Your task to perform on an android device: see tabs open on other devices in the chrome app Image 0: 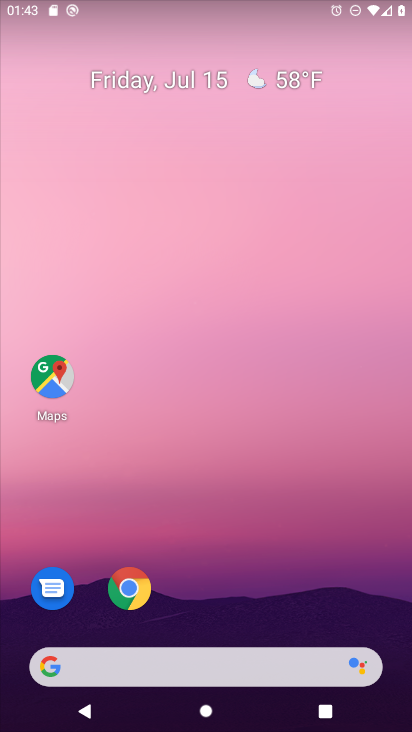
Step 0: click (131, 591)
Your task to perform on an android device: see tabs open on other devices in the chrome app Image 1: 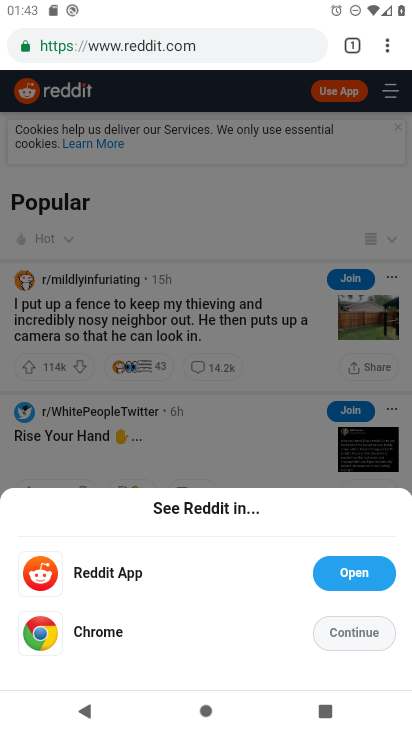
Step 1: click (388, 52)
Your task to perform on an android device: see tabs open on other devices in the chrome app Image 2: 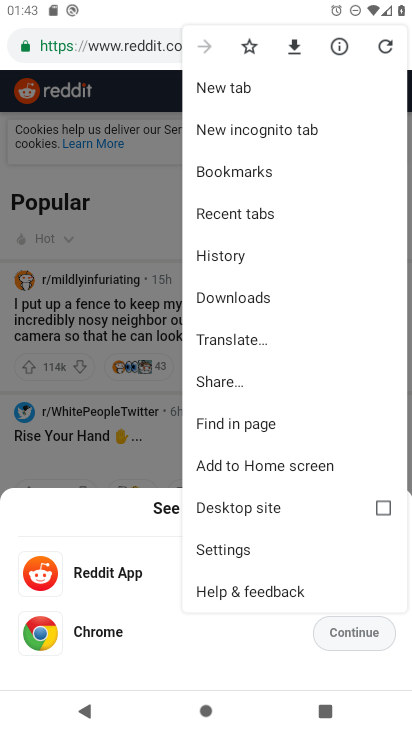
Step 2: click (225, 217)
Your task to perform on an android device: see tabs open on other devices in the chrome app Image 3: 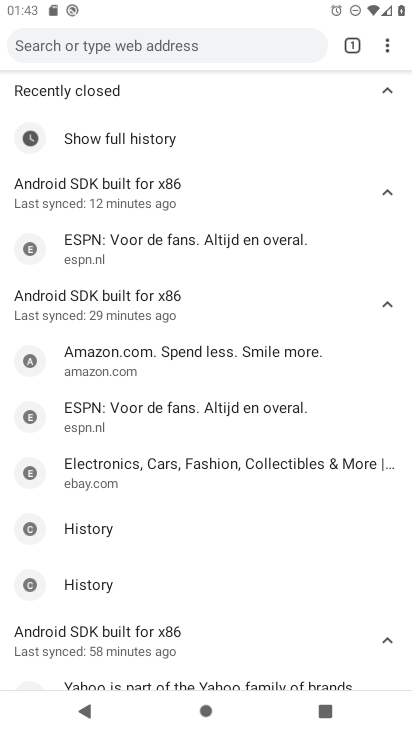
Step 3: task complete